Your task to perform on an android device: allow cookies in the chrome app Image 0: 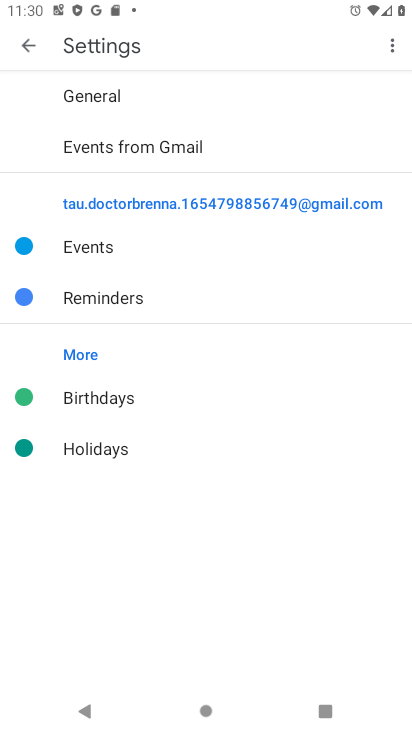
Step 0: press home button
Your task to perform on an android device: allow cookies in the chrome app Image 1: 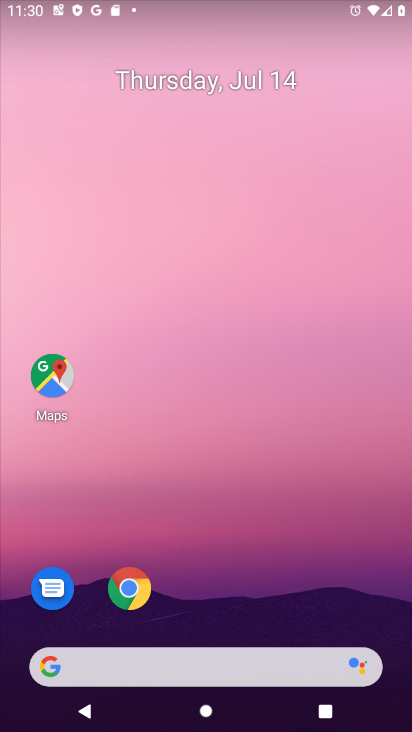
Step 1: press home button
Your task to perform on an android device: allow cookies in the chrome app Image 2: 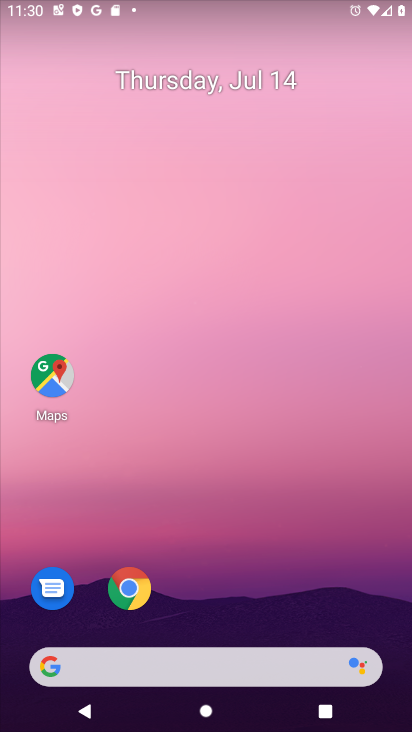
Step 2: click (123, 614)
Your task to perform on an android device: allow cookies in the chrome app Image 3: 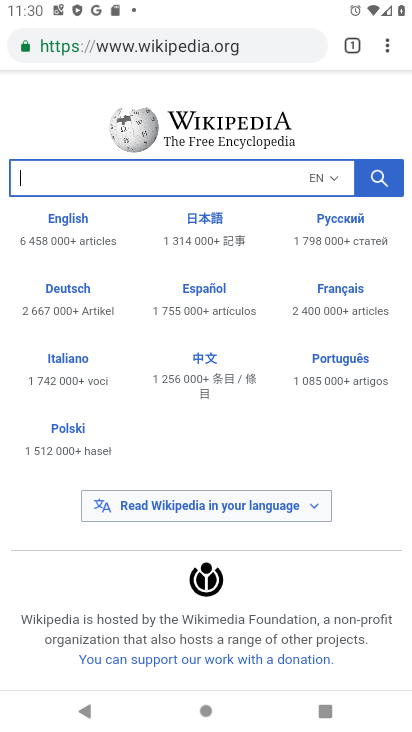
Step 3: drag from (381, 41) to (235, 602)
Your task to perform on an android device: allow cookies in the chrome app Image 4: 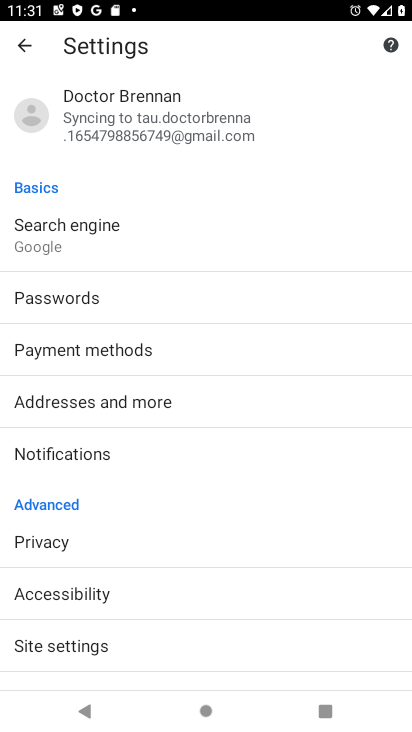
Step 4: click (96, 654)
Your task to perform on an android device: allow cookies in the chrome app Image 5: 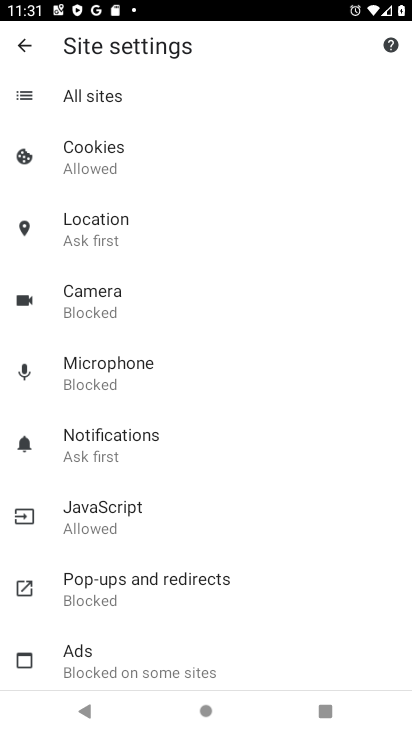
Step 5: click (105, 176)
Your task to perform on an android device: allow cookies in the chrome app Image 6: 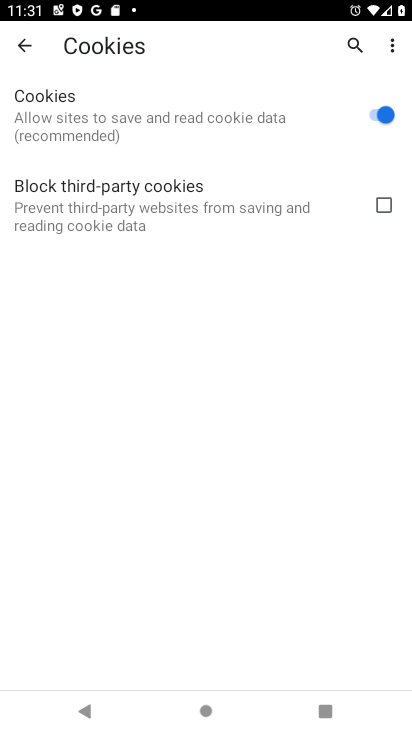
Step 6: task complete